Your task to perform on an android device: find snoozed emails in the gmail app Image 0: 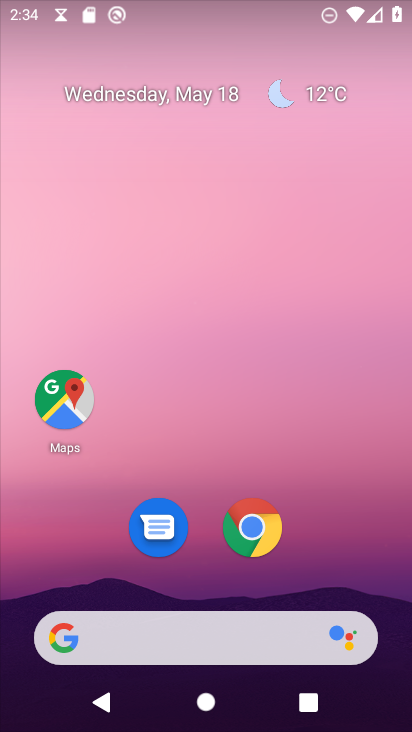
Step 0: drag from (322, 483) to (220, 77)
Your task to perform on an android device: find snoozed emails in the gmail app Image 1: 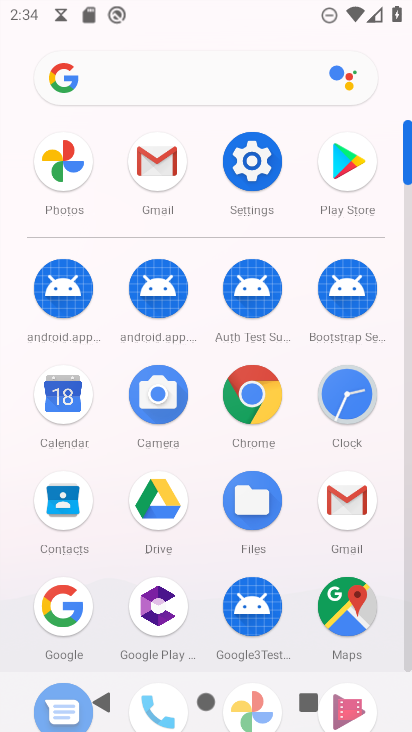
Step 1: click (352, 480)
Your task to perform on an android device: find snoozed emails in the gmail app Image 2: 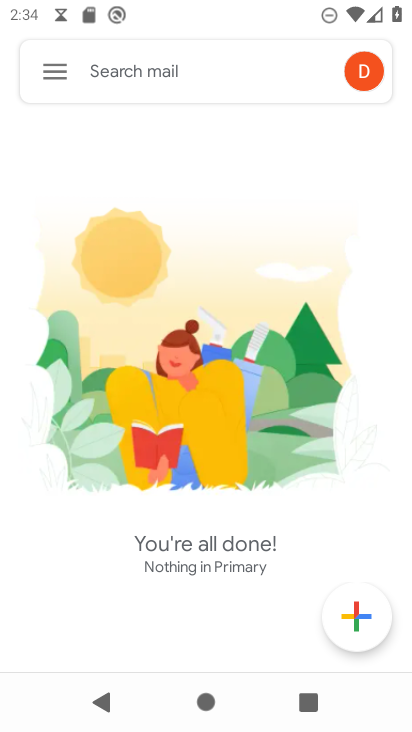
Step 2: click (54, 79)
Your task to perform on an android device: find snoozed emails in the gmail app Image 3: 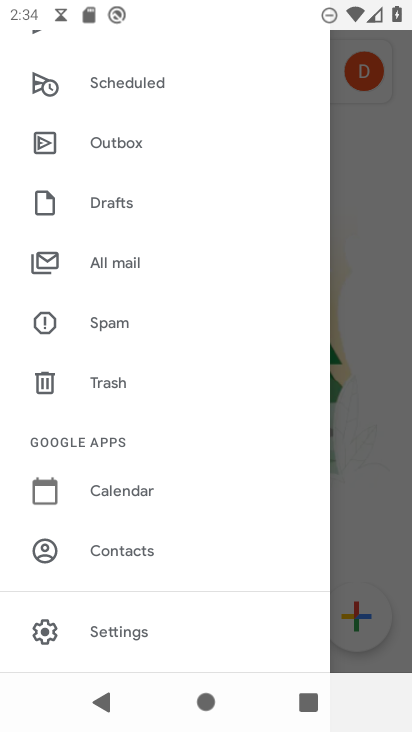
Step 3: drag from (212, 174) to (148, 583)
Your task to perform on an android device: find snoozed emails in the gmail app Image 4: 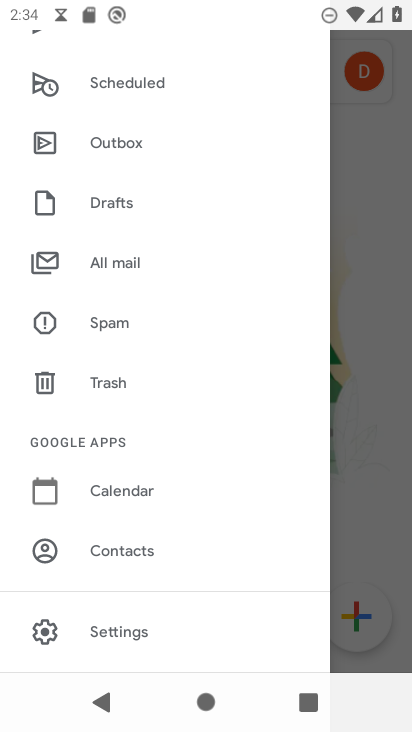
Step 4: drag from (150, 146) to (158, 649)
Your task to perform on an android device: find snoozed emails in the gmail app Image 5: 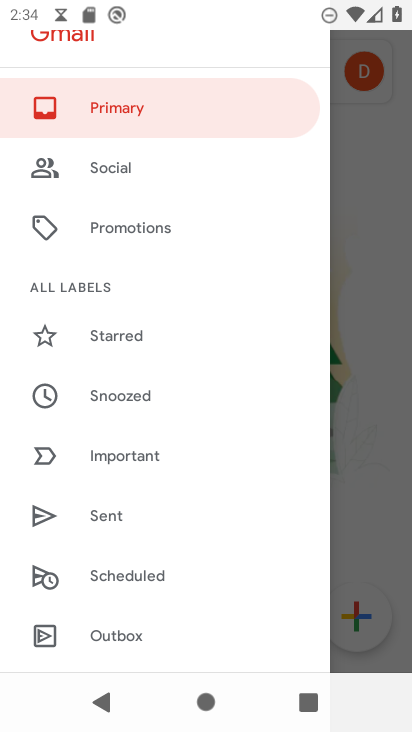
Step 5: click (148, 395)
Your task to perform on an android device: find snoozed emails in the gmail app Image 6: 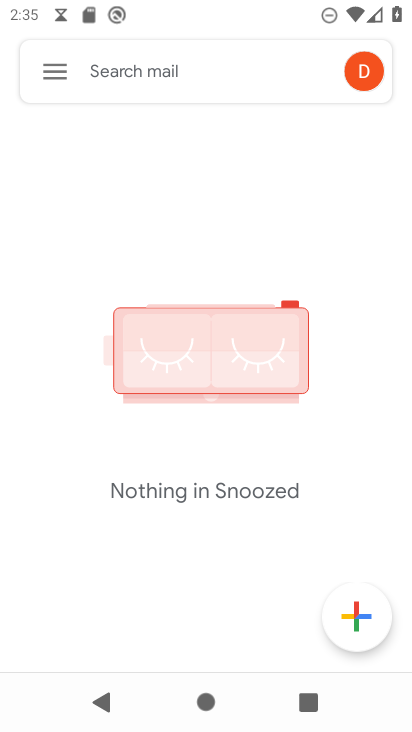
Step 6: task complete